Your task to perform on an android device: change the clock display to analog Image 0: 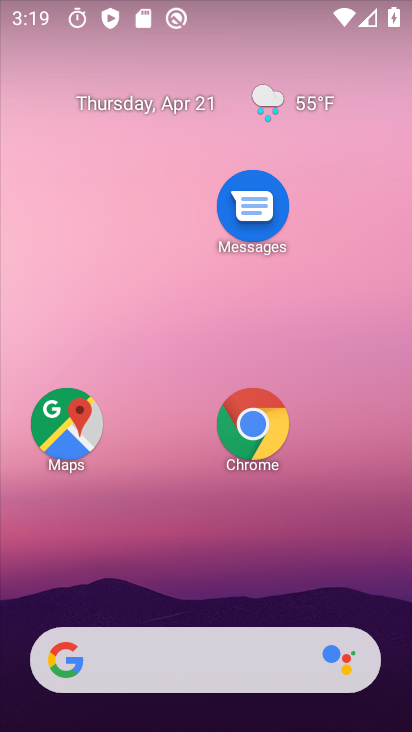
Step 0: drag from (181, 512) to (220, 48)
Your task to perform on an android device: change the clock display to analog Image 1: 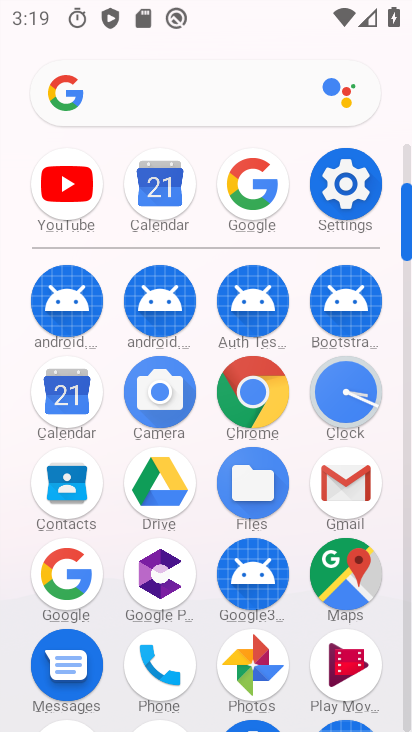
Step 1: click (345, 397)
Your task to perform on an android device: change the clock display to analog Image 2: 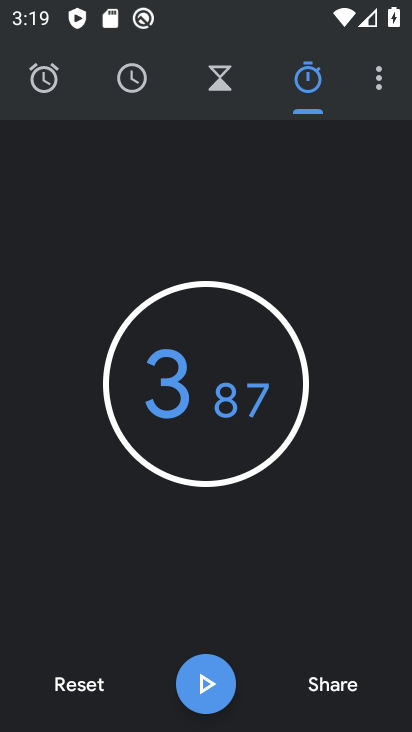
Step 2: click (369, 77)
Your task to perform on an android device: change the clock display to analog Image 3: 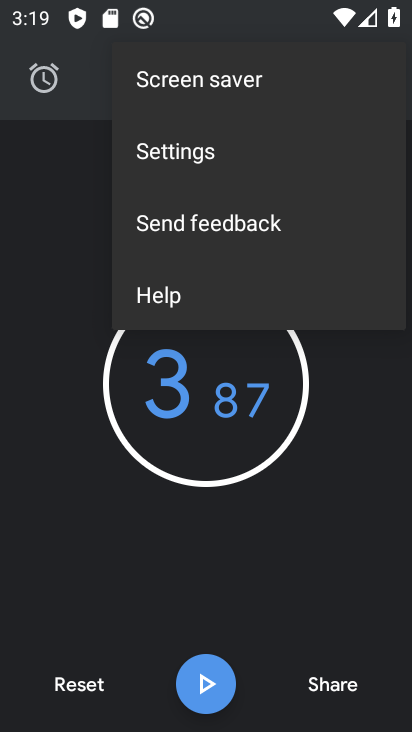
Step 3: click (201, 155)
Your task to perform on an android device: change the clock display to analog Image 4: 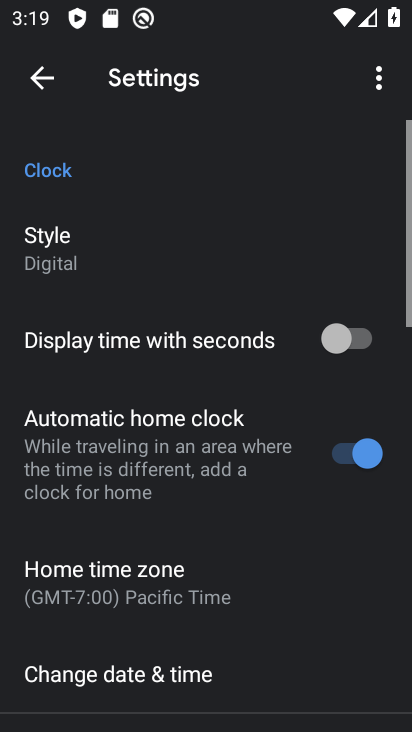
Step 4: click (131, 250)
Your task to perform on an android device: change the clock display to analog Image 5: 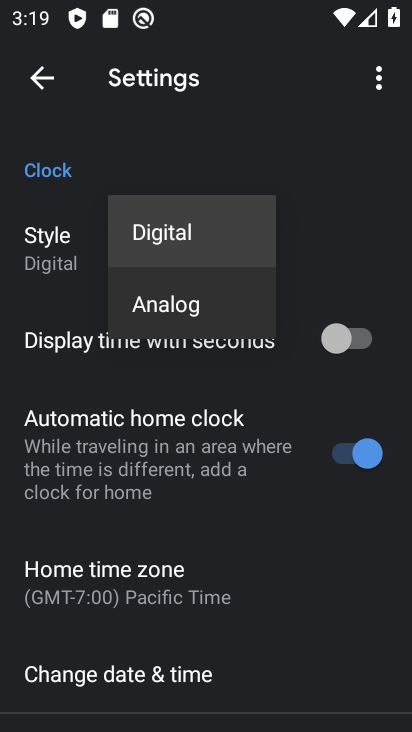
Step 5: click (167, 311)
Your task to perform on an android device: change the clock display to analog Image 6: 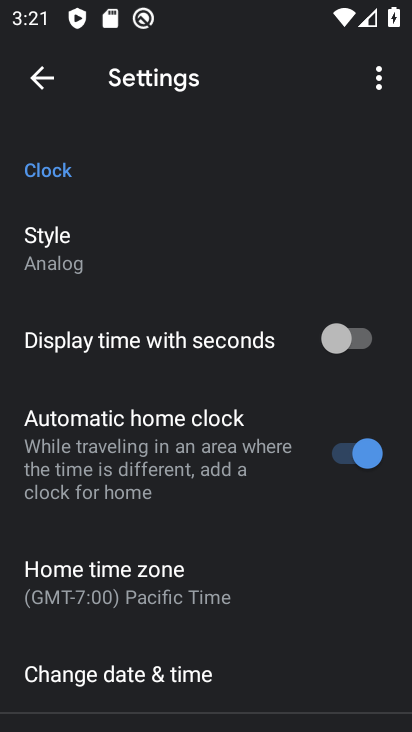
Step 6: task complete